Your task to perform on an android device: turn off javascript in the chrome app Image 0: 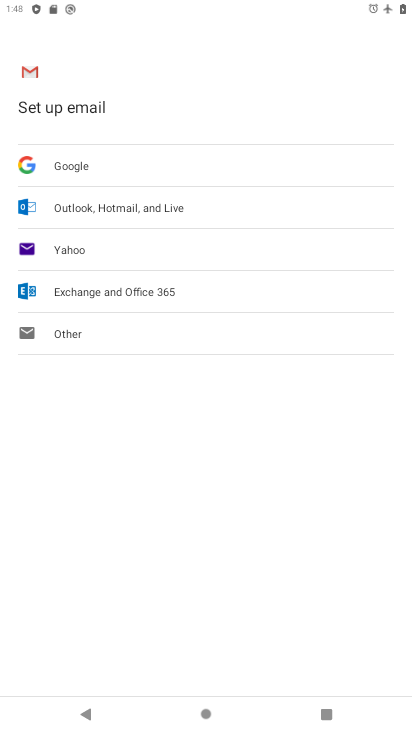
Step 0: press home button
Your task to perform on an android device: turn off javascript in the chrome app Image 1: 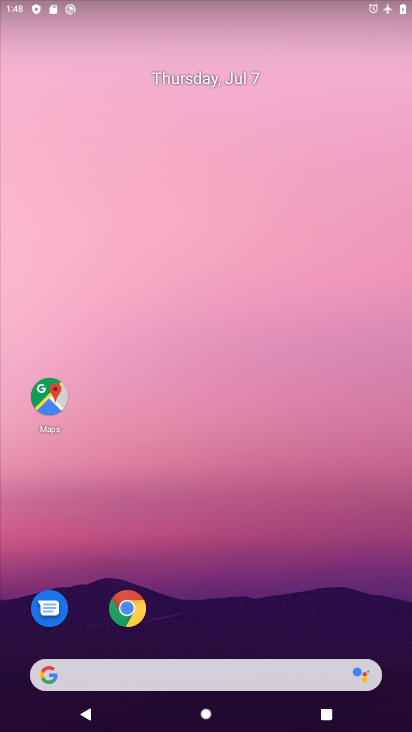
Step 1: click (127, 609)
Your task to perform on an android device: turn off javascript in the chrome app Image 2: 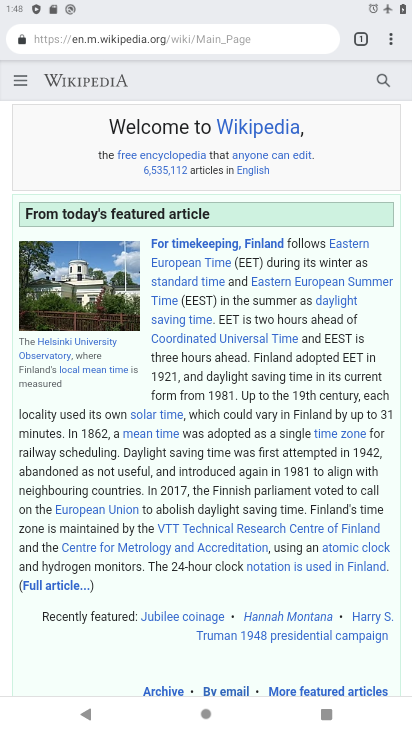
Step 2: click (390, 43)
Your task to perform on an android device: turn off javascript in the chrome app Image 3: 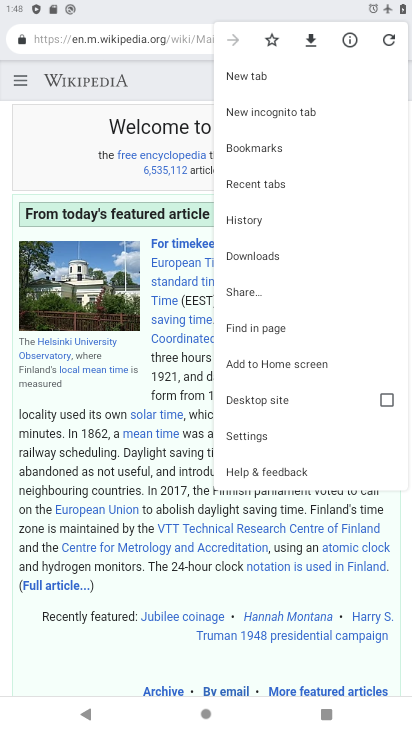
Step 3: click (247, 435)
Your task to perform on an android device: turn off javascript in the chrome app Image 4: 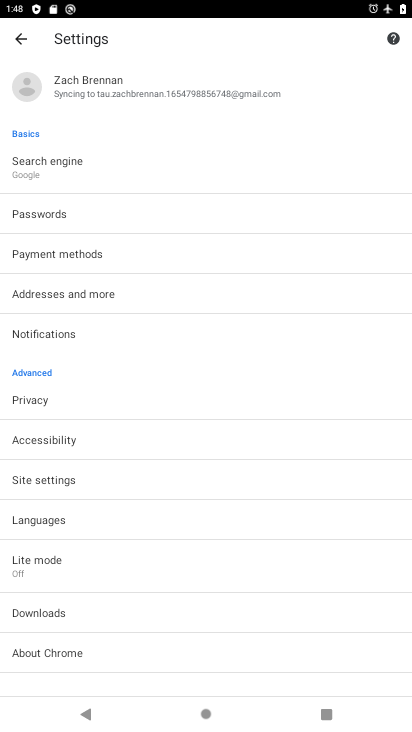
Step 4: click (39, 482)
Your task to perform on an android device: turn off javascript in the chrome app Image 5: 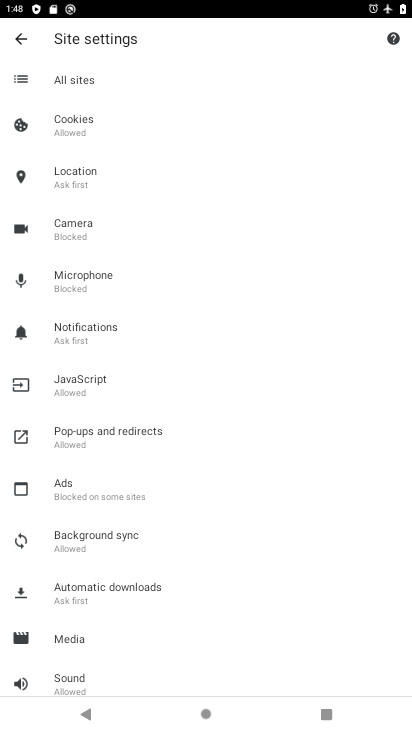
Step 5: click (79, 384)
Your task to perform on an android device: turn off javascript in the chrome app Image 6: 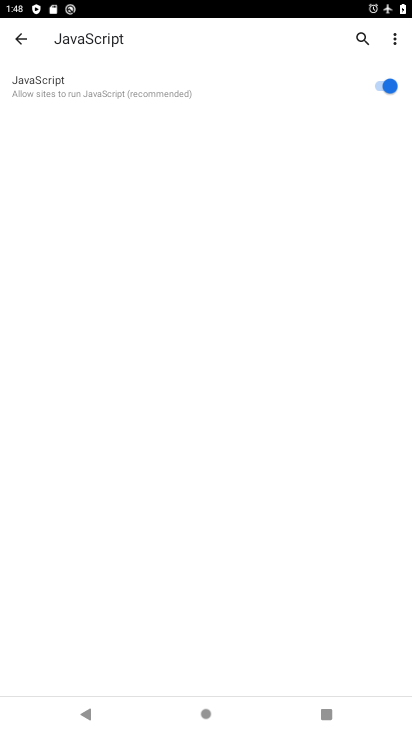
Step 6: click (383, 85)
Your task to perform on an android device: turn off javascript in the chrome app Image 7: 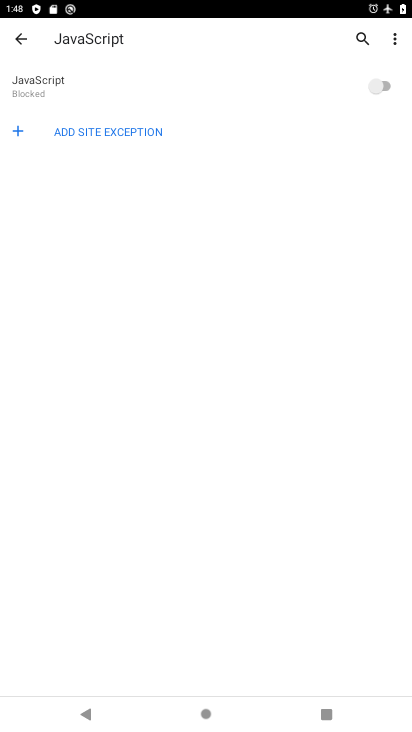
Step 7: task complete